Your task to perform on an android device: turn vacation reply on in the gmail app Image 0: 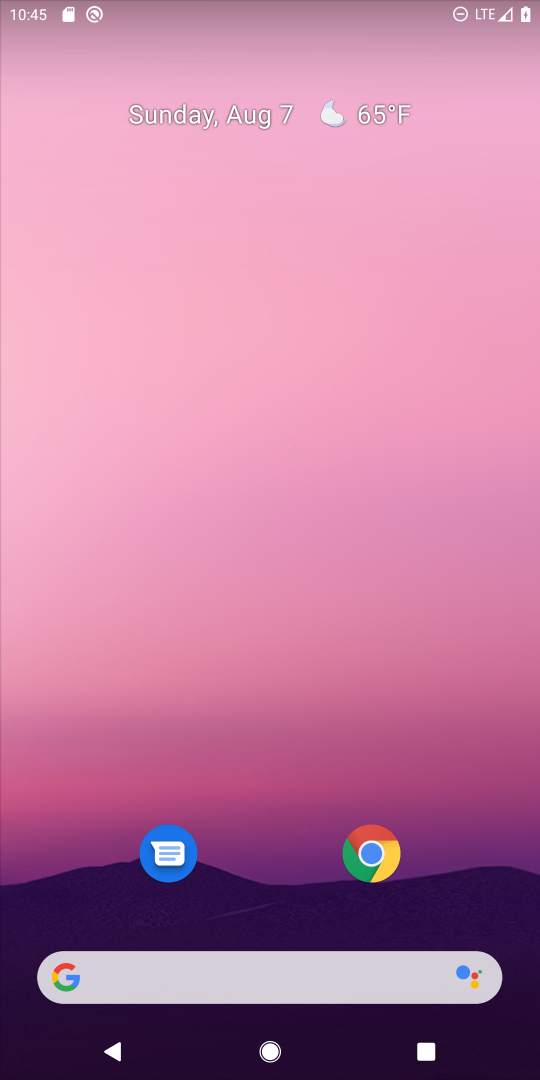
Step 0: drag from (157, 907) to (157, 340)
Your task to perform on an android device: turn vacation reply on in the gmail app Image 1: 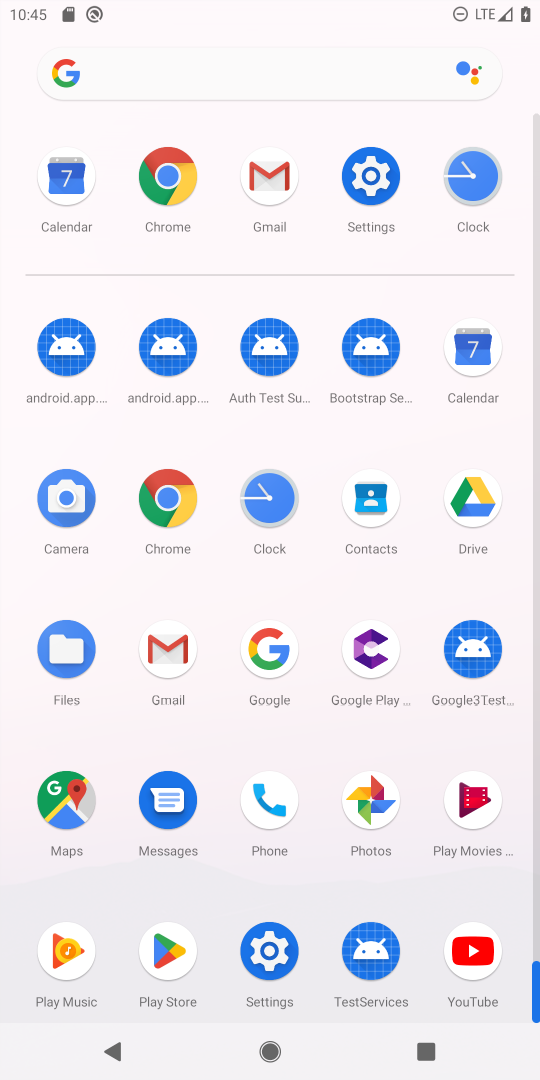
Step 1: click (182, 639)
Your task to perform on an android device: turn vacation reply on in the gmail app Image 2: 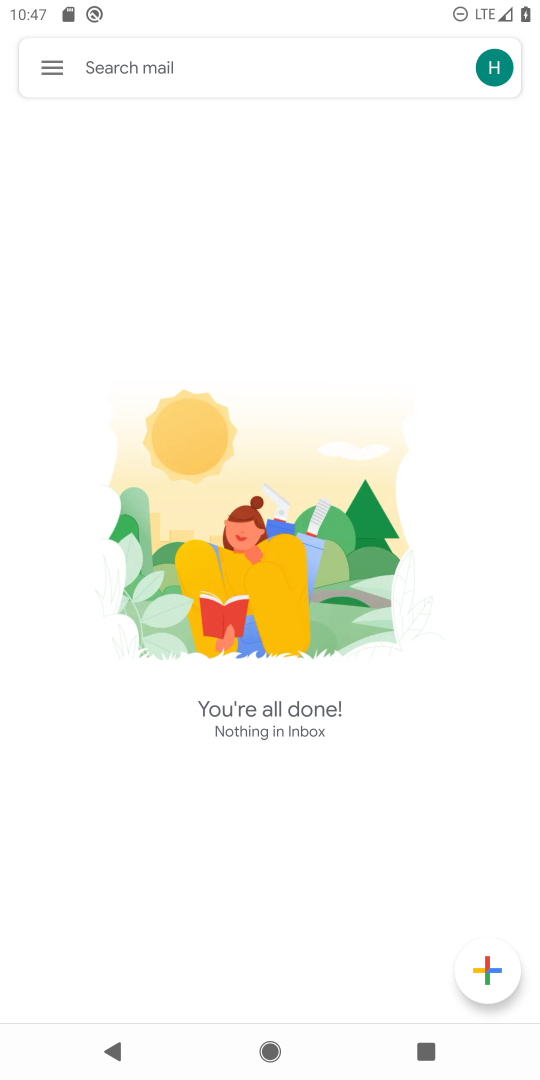
Step 2: click (49, 67)
Your task to perform on an android device: turn vacation reply on in the gmail app Image 3: 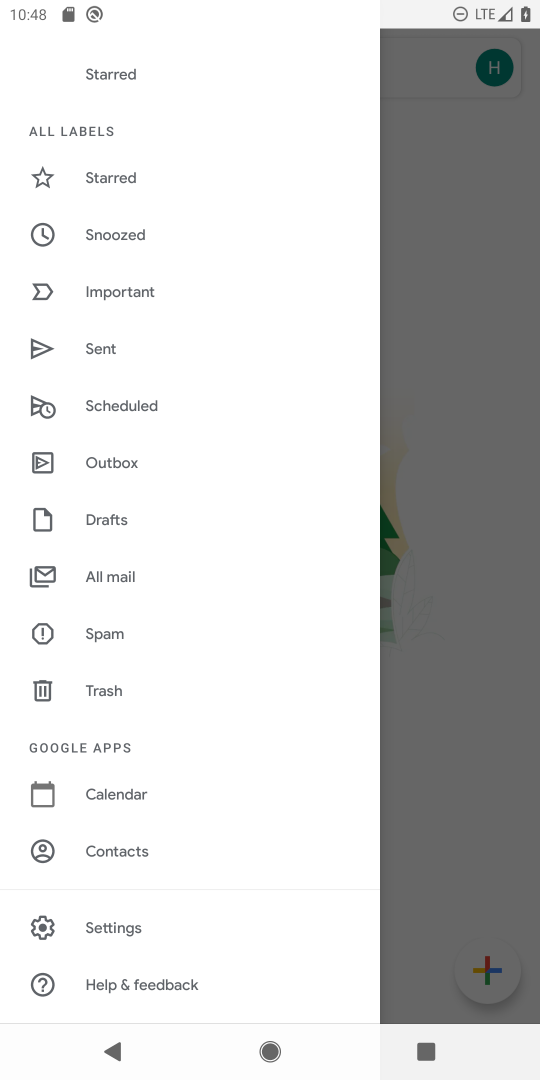
Step 3: click (126, 925)
Your task to perform on an android device: turn vacation reply on in the gmail app Image 4: 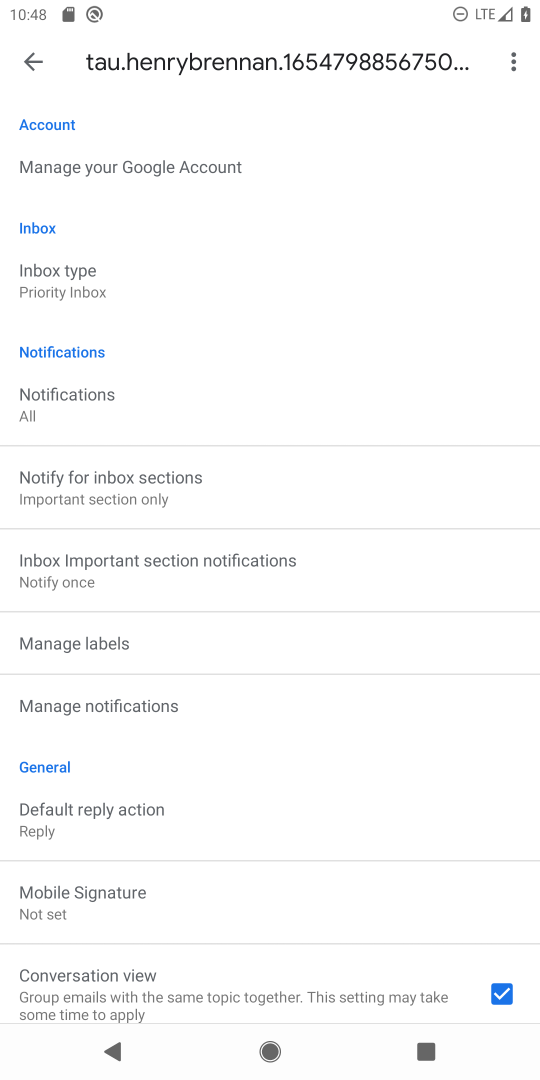
Step 4: drag from (123, 951) to (211, 318)
Your task to perform on an android device: turn vacation reply on in the gmail app Image 5: 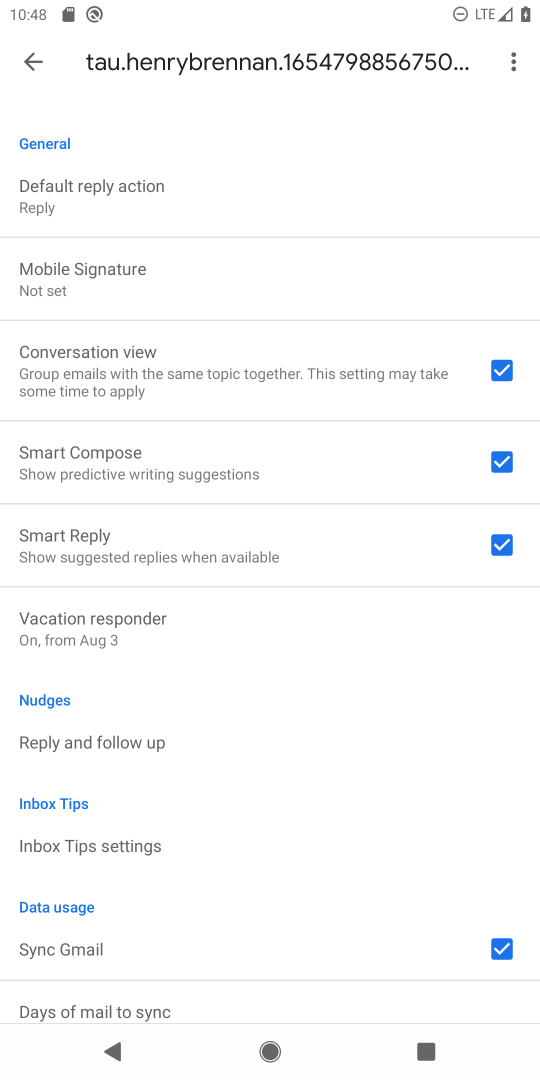
Step 5: click (156, 626)
Your task to perform on an android device: turn vacation reply on in the gmail app Image 6: 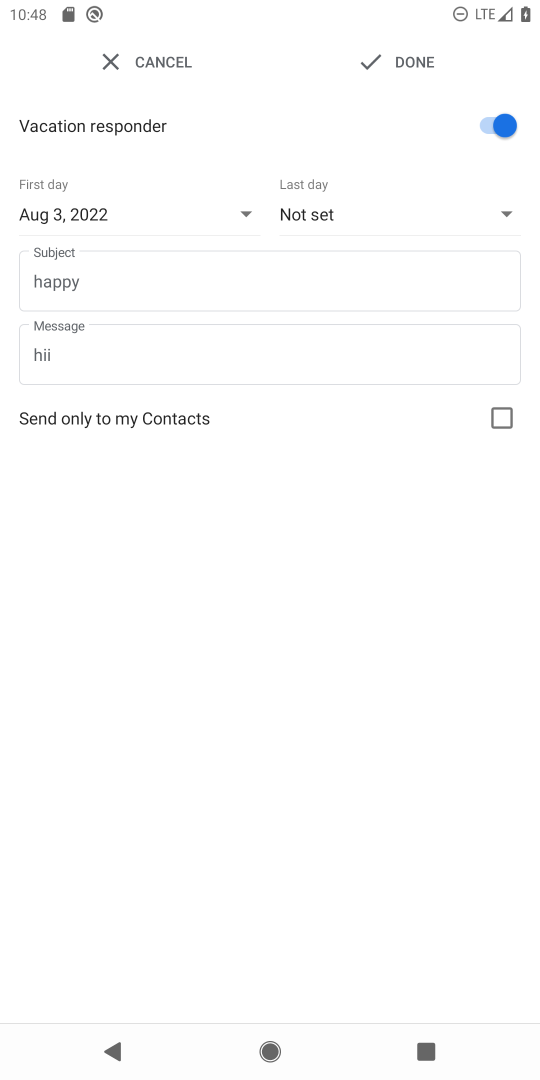
Step 6: task complete